Your task to perform on an android device: Open the phone app and click the voicemail tab. Image 0: 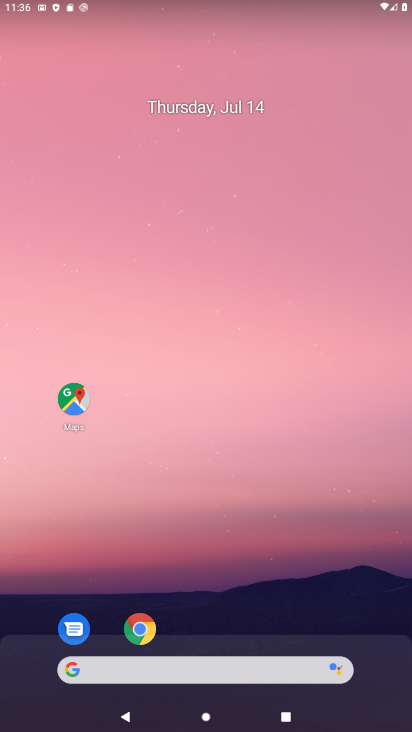
Step 0: drag from (270, 545) to (345, 174)
Your task to perform on an android device: Open the phone app and click the voicemail tab. Image 1: 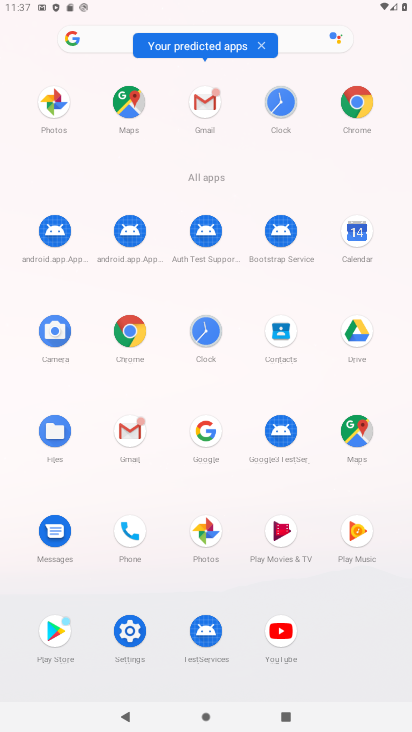
Step 1: click (132, 525)
Your task to perform on an android device: Open the phone app and click the voicemail tab. Image 2: 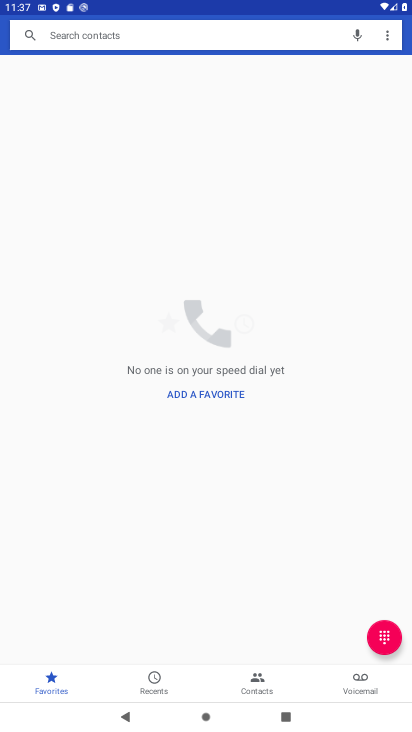
Step 2: click (375, 676)
Your task to perform on an android device: Open the phone app and click the voicemail tab. Image 3: 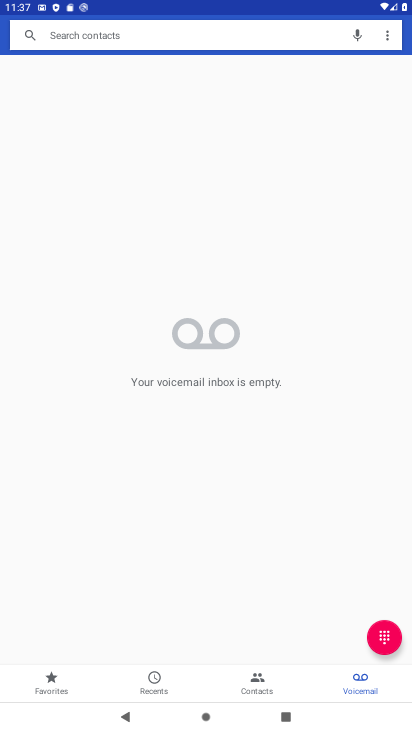
Step 3: task complete